Your task to perform on an android device: Go to Wikipedia Image 0: 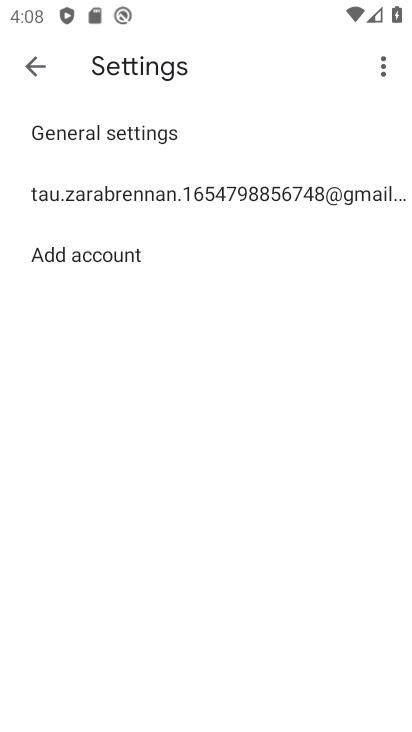
Step 0: press home button
Your task to perform on an android device: Go to Wikipedia Image 1: 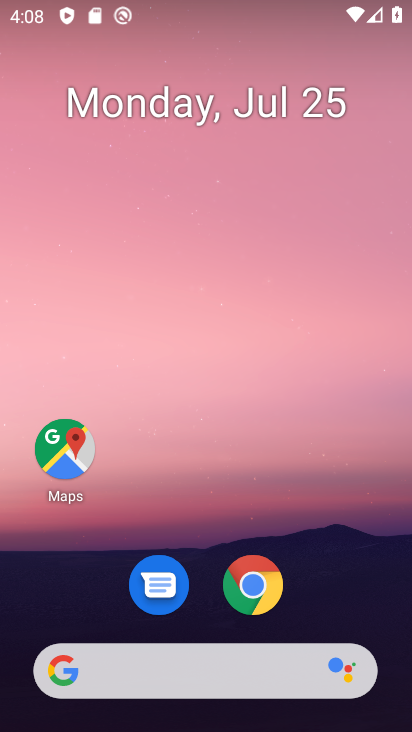
Step 1: click (262, 580)
Your task to perform on an android device: Go to Wikipedia Image 2: 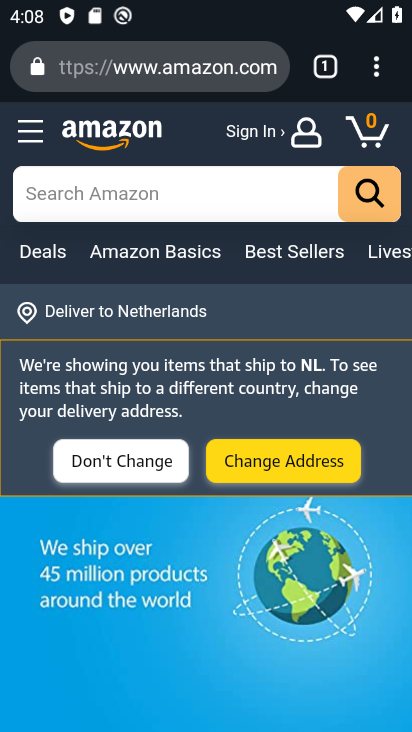
Step 2: click (378, 63)
Your task to perform on an android device: Go to Wikipedia Image 3: 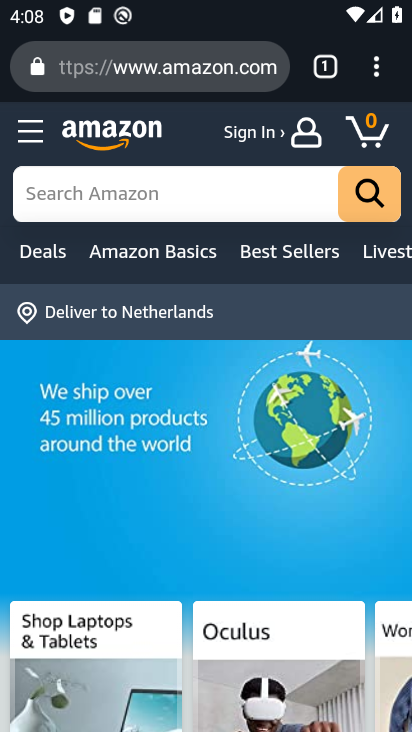
Step 3: click (374, 73)
Your task to perform on an android device: Go to Wikipedia Image 4: 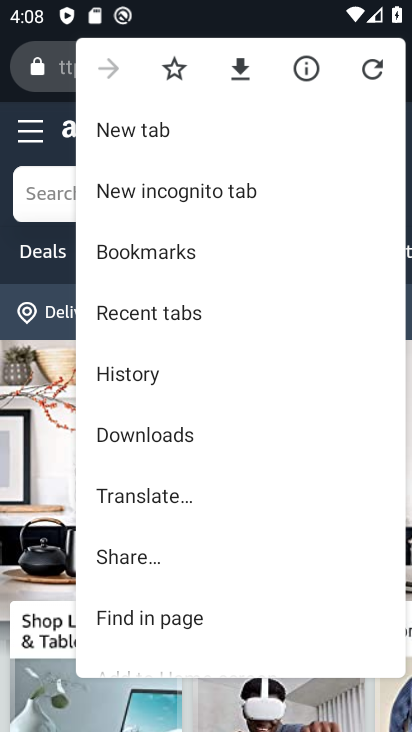
Step 4: click (162, 129)
Your task to perform on an android device: Go to Wikipedia Image 5: 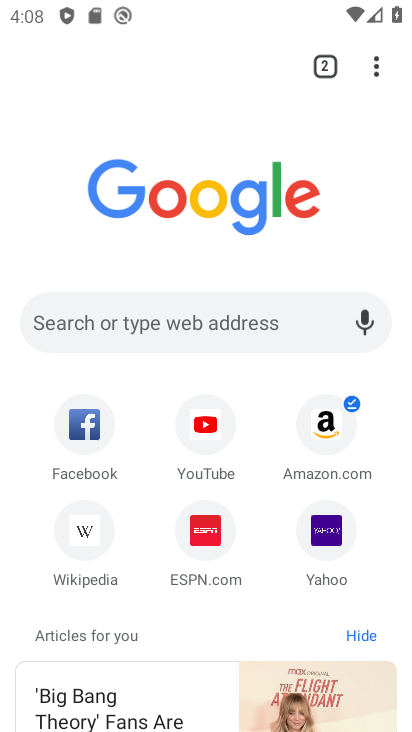
Step 5: click (90, 532)
Your task to perform on an android device: Go to Wikipedia Image 6: 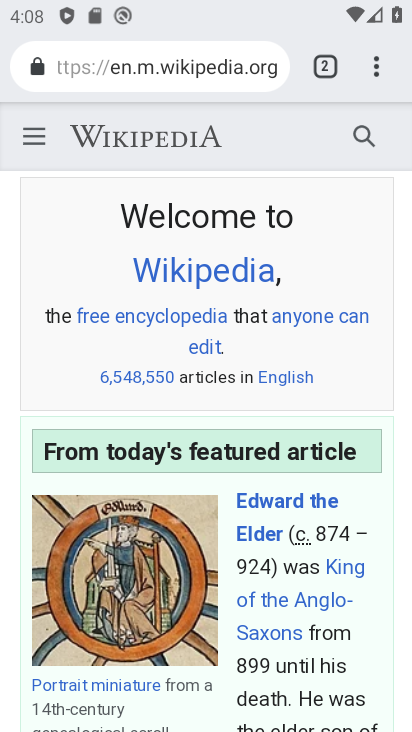
Step 6: task complete